Your task to perform on an android device: open app "Fetch Rewards" Image 0: 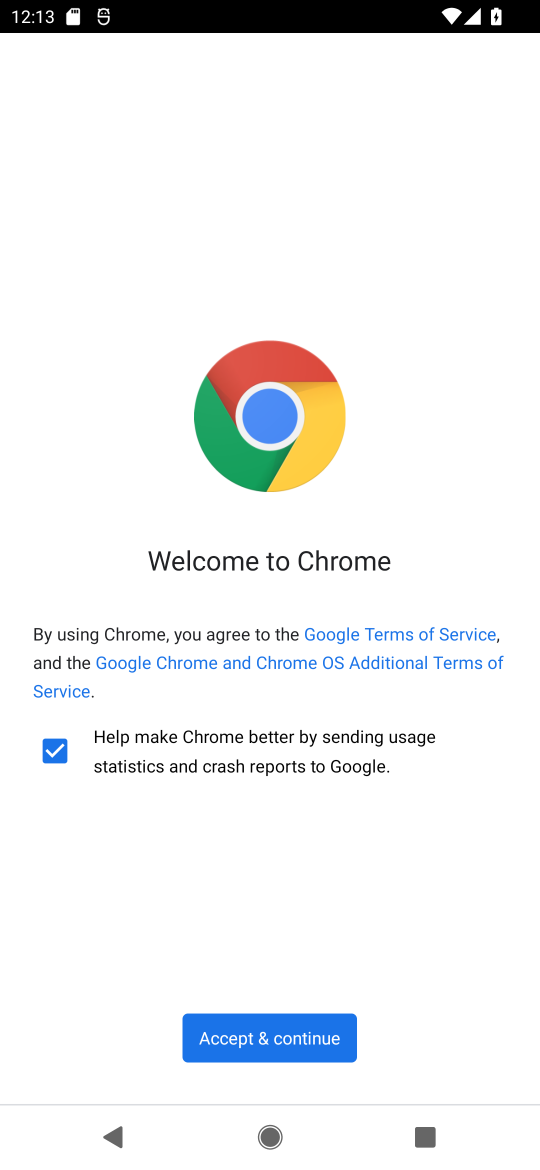
Step 0: press back button
Your task to perform on an android device: open app "Fetch Rewards" Image 1: 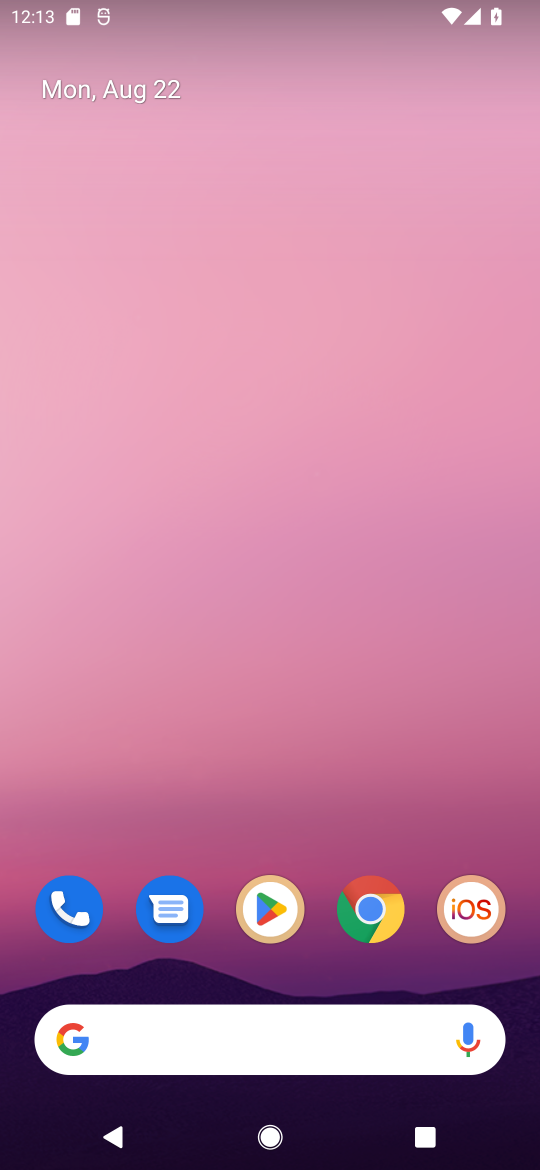
Step 1: click (278, 915)
Your task to perform on an android device: open app "Fetch Rewards" Image 2: 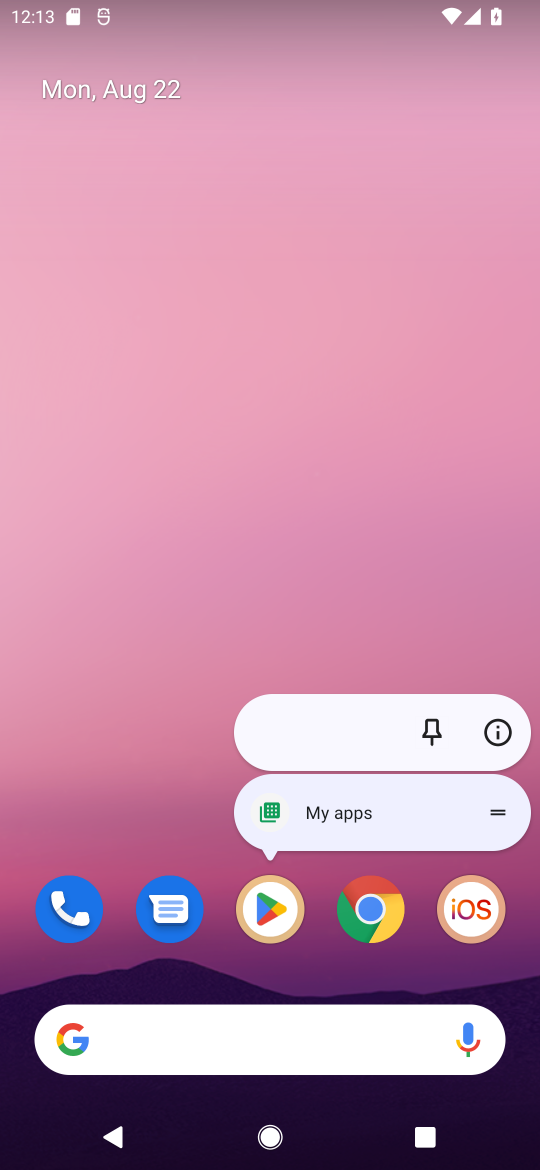
Step 2: click (278, 918)
Your task to perform on an android device: open app "Fetch Rewards" Image 3: 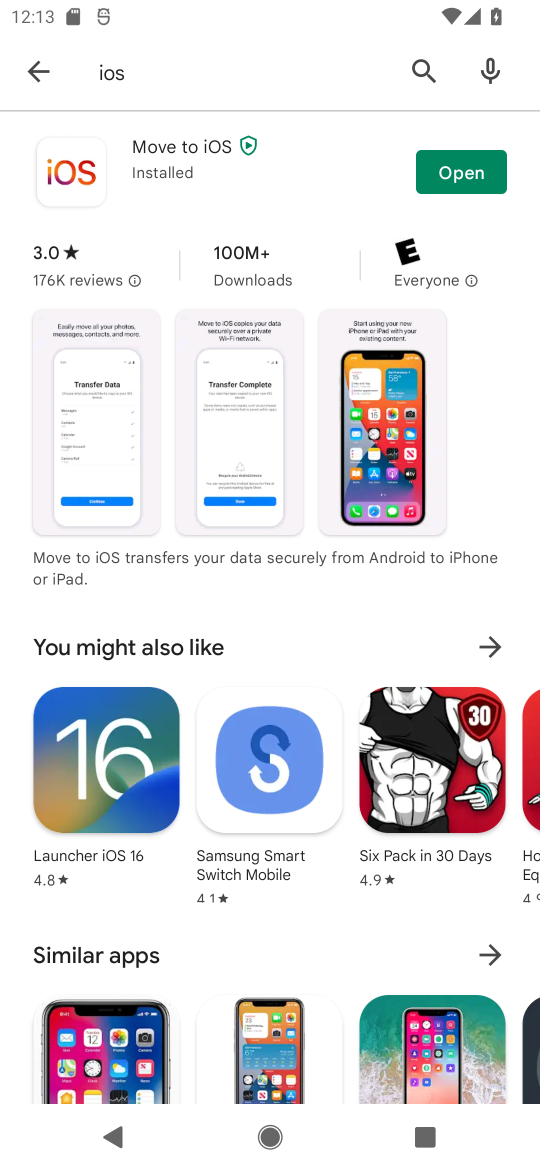
Step 3: click (272, 909)
Your task to perform on an android device: open app "Fetch Rewards" Image 4: 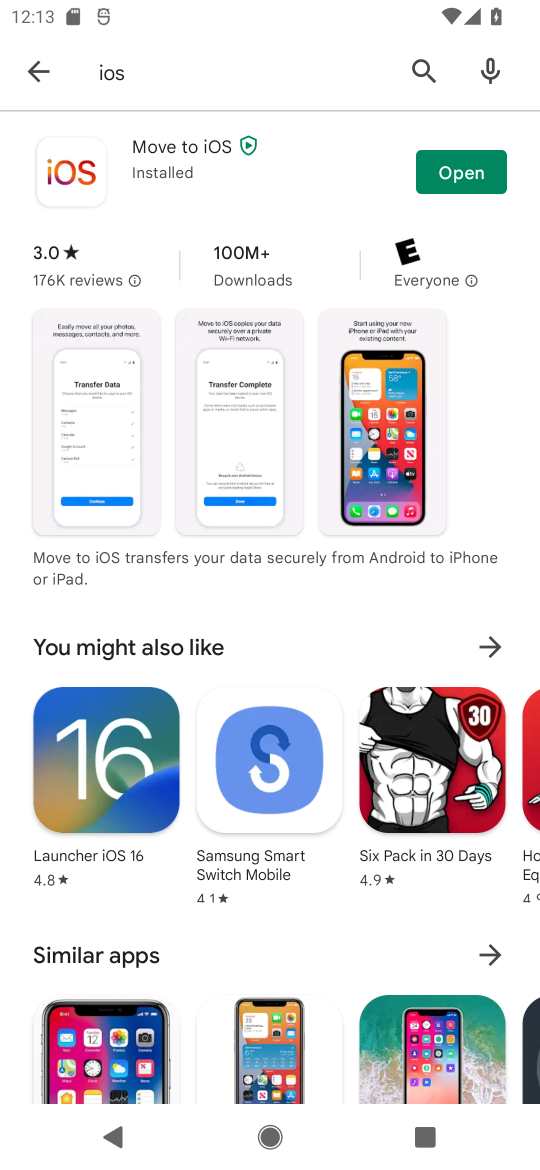
Step 4: click (420, 61)
Your task to perform on an android device: open app "Fetch Rewards" Image 5: 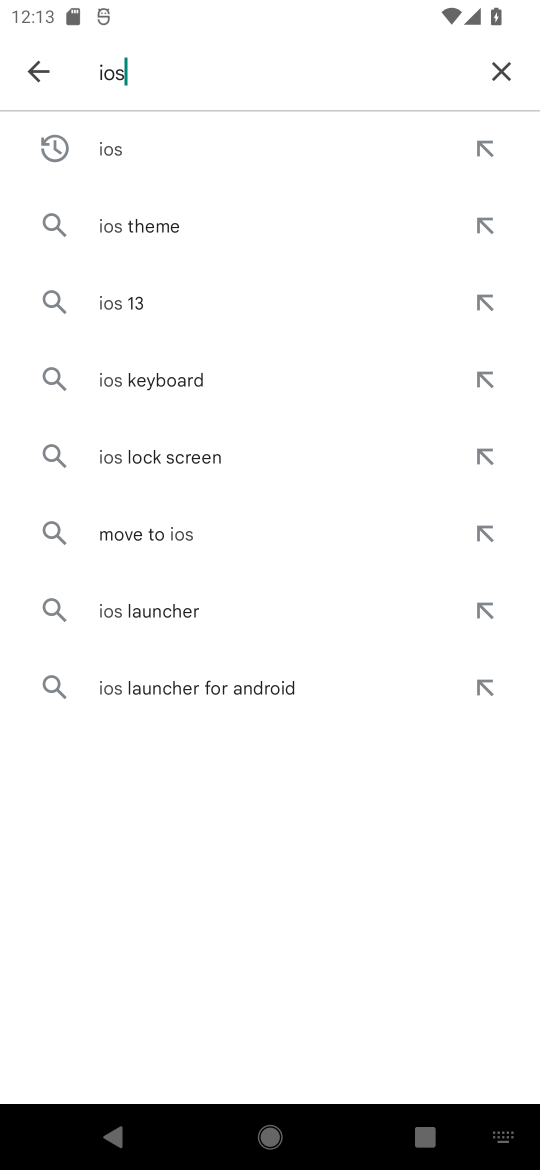
Step 5: click (488, 67)
Your task to perform on an android device: open app "Fetch Rewards" Image 6: 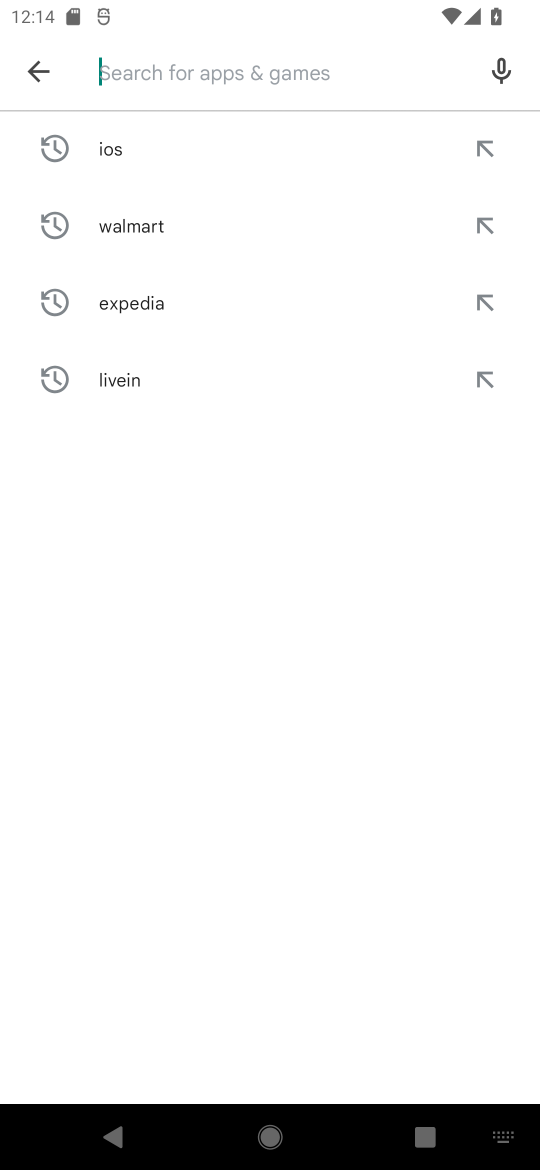
Step 6: click (167, 74)
Your task to perform on an android device: open app "Fetch Rewards" Image 7: 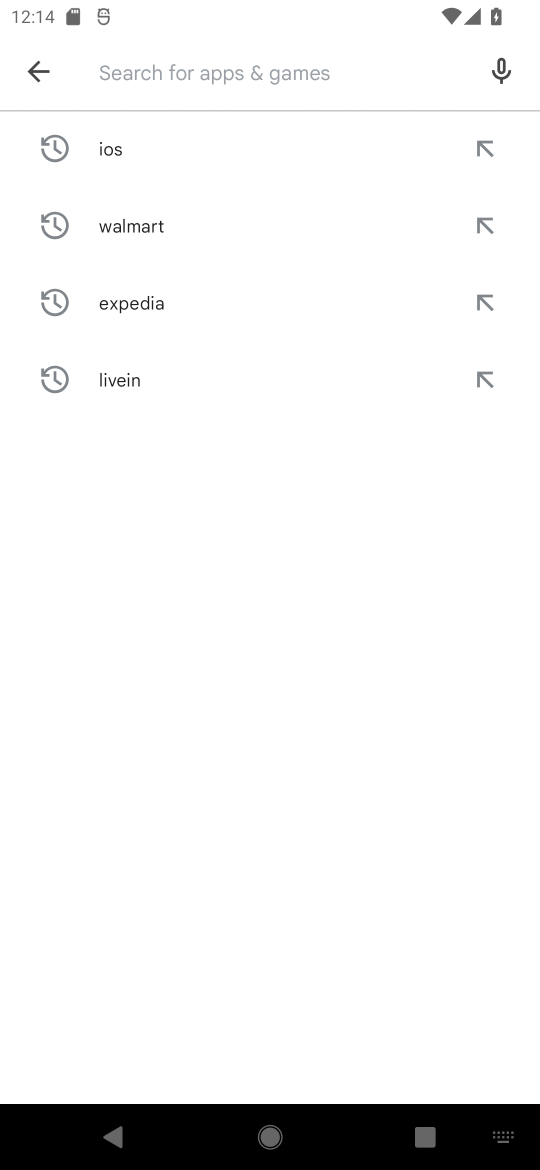
Step 7: type "Fetch Rewards"
Your task to perform on an android device: open app "Fetch Rewards" Image 8: 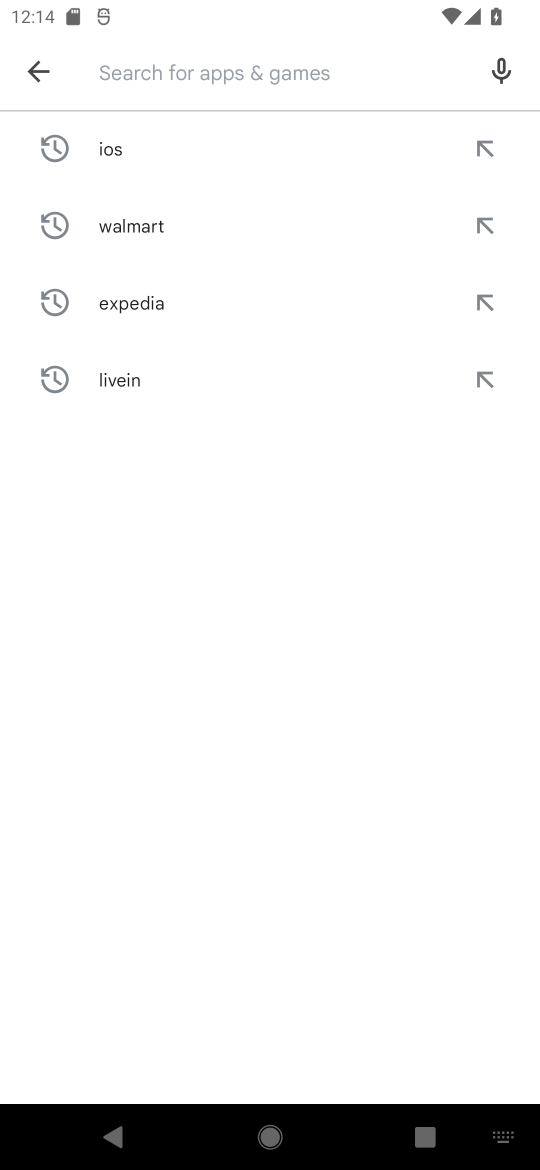
Step 8: click (205, 695)
Your task to perform on an android device: open app "Fetch Rewards" Image 9: 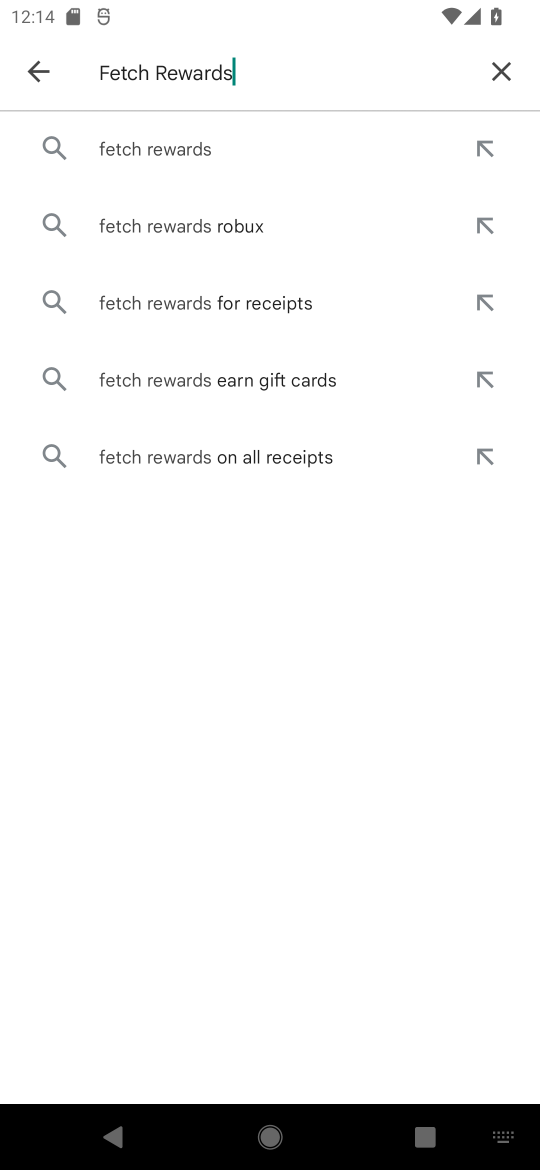
Step 9: click (217, 137)
Your task to perform on an android device: open app "Fetch Rewards" Image 10: 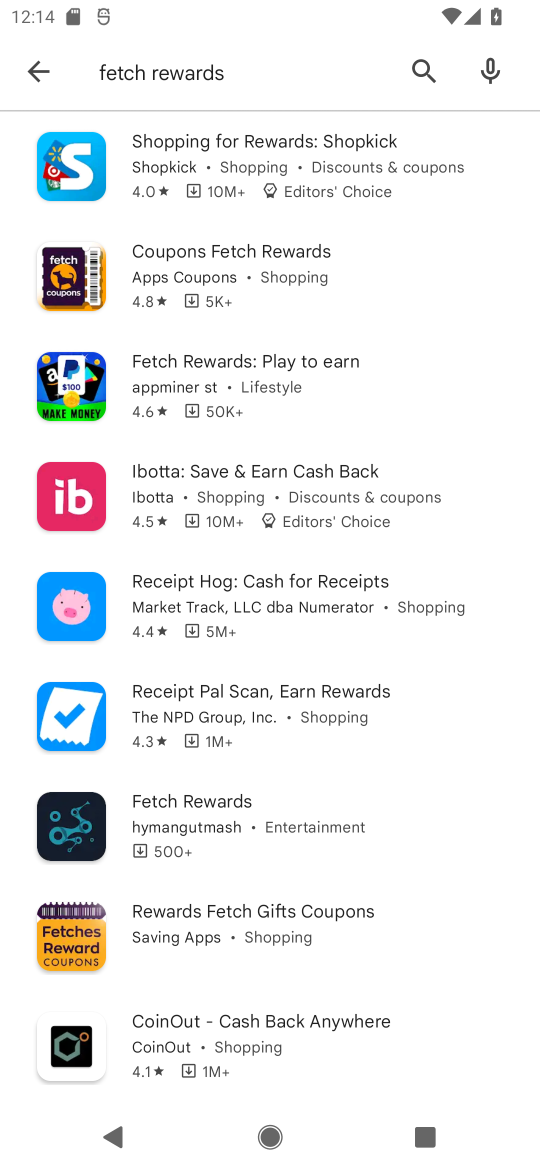
Step 10: click (228, 817)
Your task to perform on an android device: open app "Fetch Rewards" Image 11: 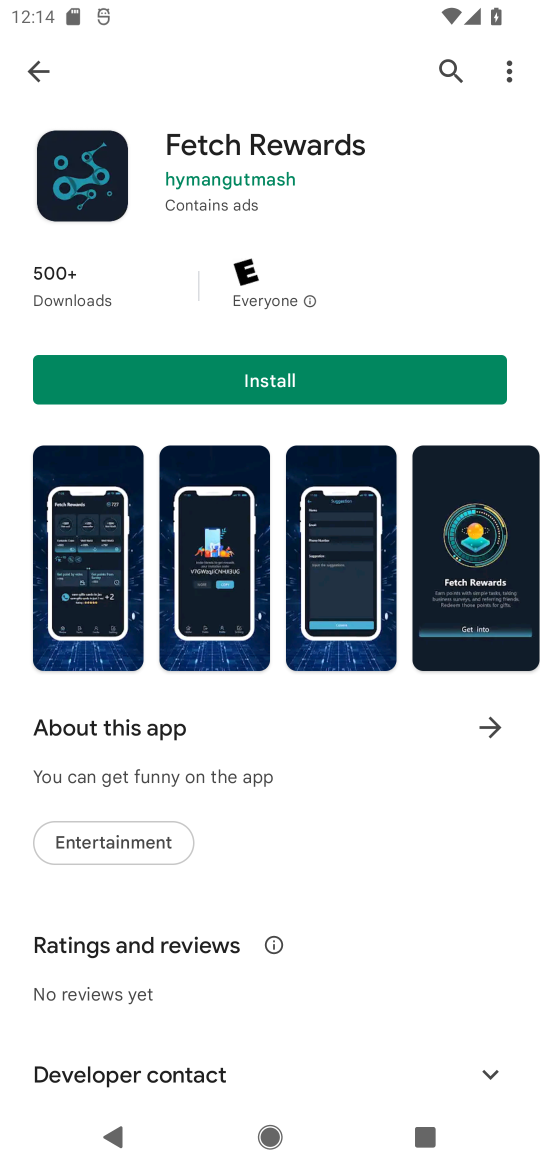
Step 11: task complete